Your task to perform on an android device: Open calendar and show me the fourth week of next month Image 0: 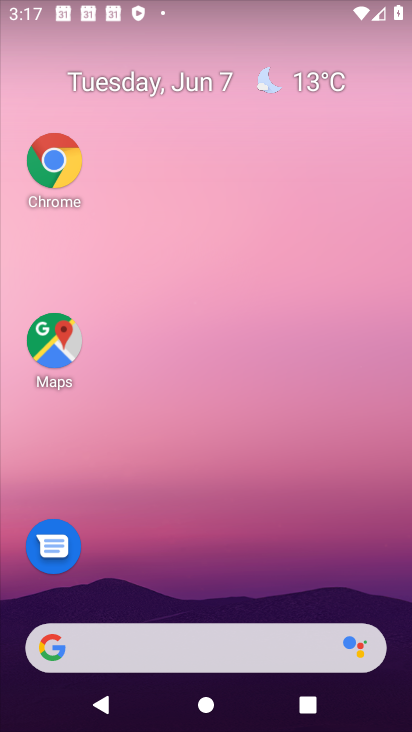
Step 0: drag from (202, 614) to (298, 110)
Your task to perform on an android device: Open calendar and show me the fourth week of next month Image 1: 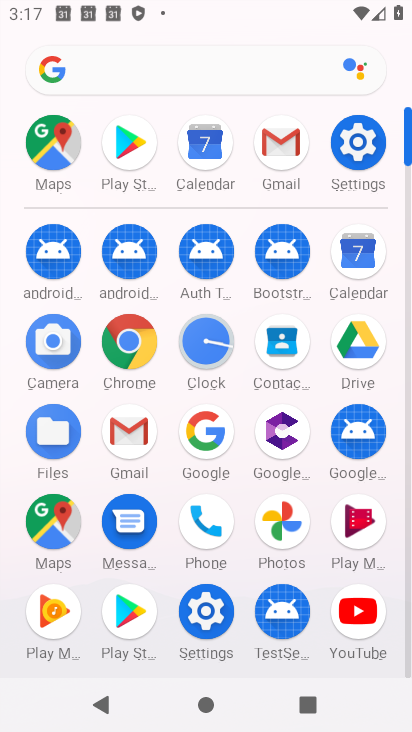
Step 1: click (344, 263)
Your task to perform on an android device: Open calendar and show me the fourth week of next month Image 2: 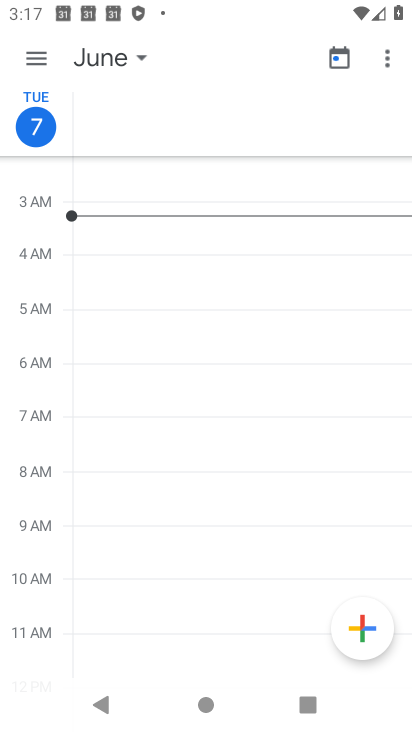
Step 2: click (141, 59)
Your task to perform on an android device: Open calendar and show me the fourth week of next month Image 3: 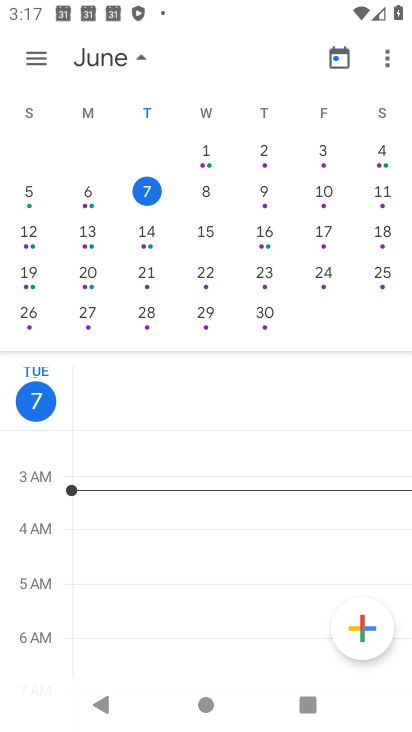
Step 3: drag from (341, 234) to (2, 269)
Your task to perform on an android device: Open calendar and show me the fourth week of next month Image 4: 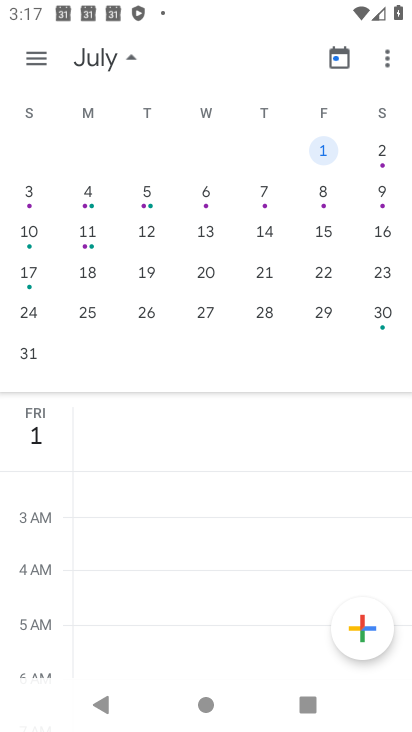
Step 4: click (321, 281)
Your task to perform on an android device: Open calendar and show me the fourth week of next month Image 5: 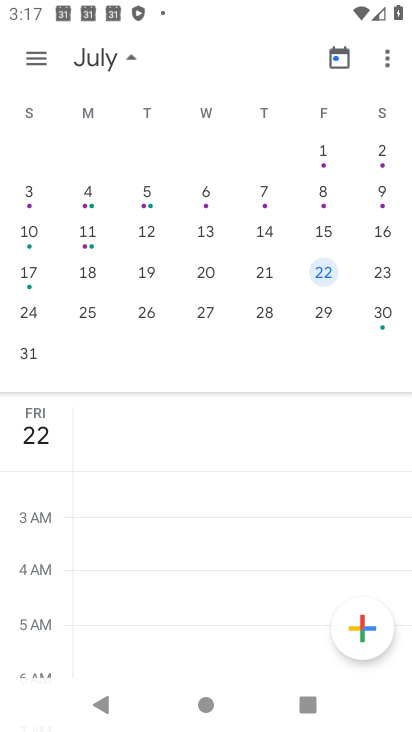
Step 5: task complete